Your task to perform on an android device: turn off location Image 0: 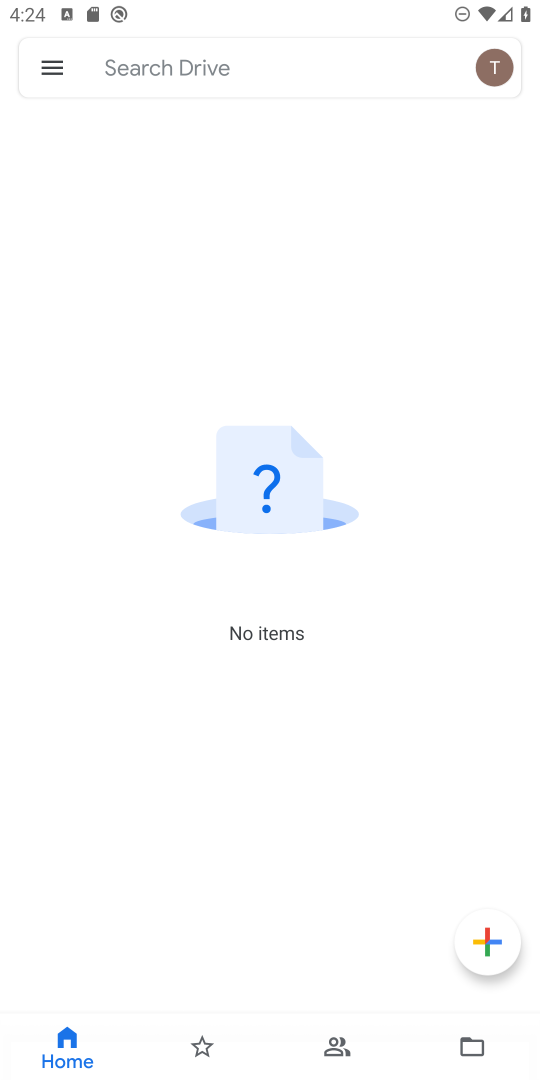
Step 0: press home button
Your task to perform on an android device: turn off location Image 1: 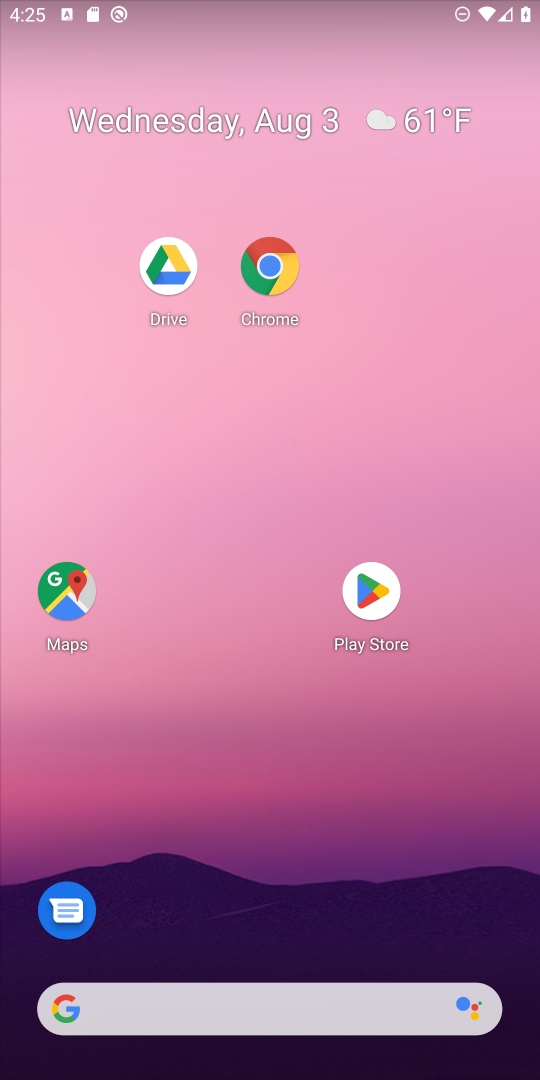
Step 1: drag from (399, 864) to (515, 24)
Your task to perform on an android device: turn off location Image 2: 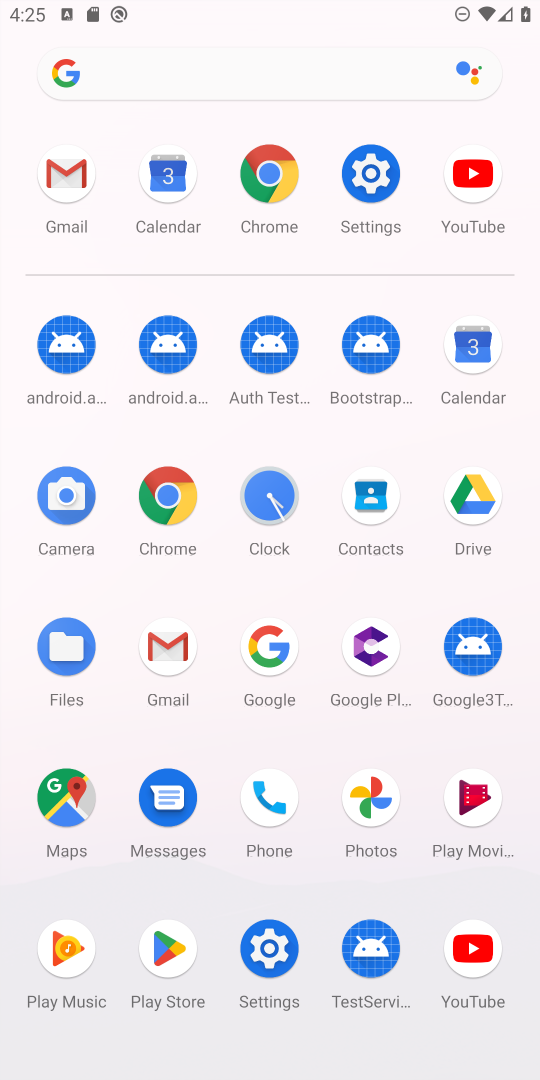
Step 2: click (371, 179)
Your task to perform on an android device: turn off location Image 3: 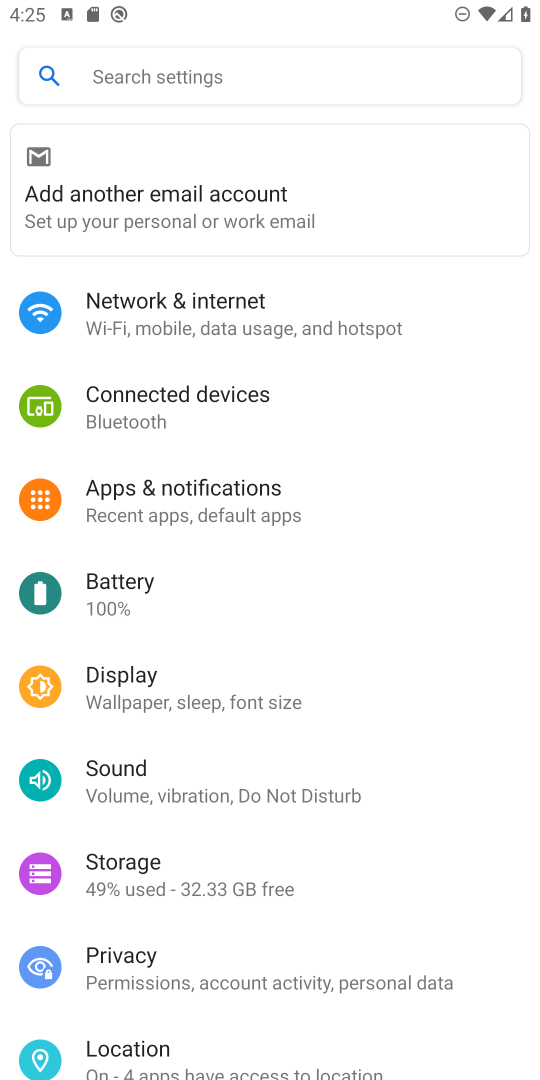
Step 3: click (288, 1052)
Your task to perform on an android device: turn off location Image 4: 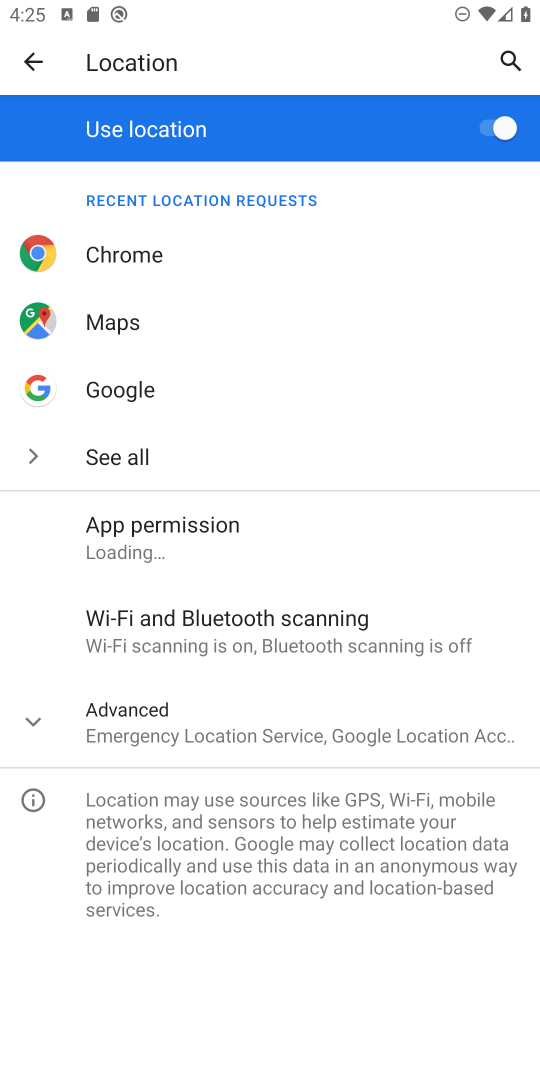
Step 4: click (478, 132)
Your task to perform on an android device: turn off location Image 5: 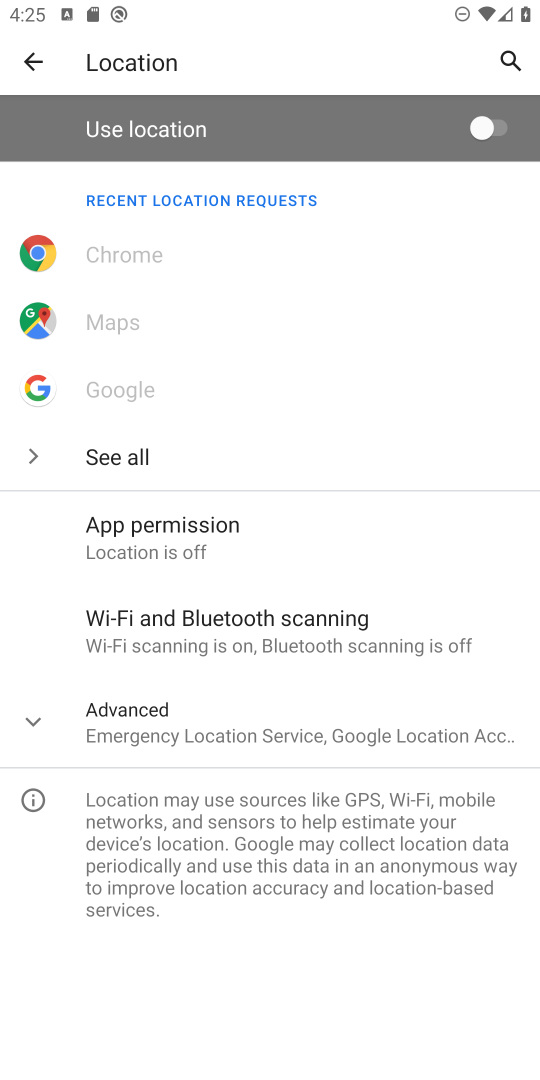
Step 5: task complete